Your task to perform on an android device: Open the Play Movies app and select the watchlist tab. Image 0: 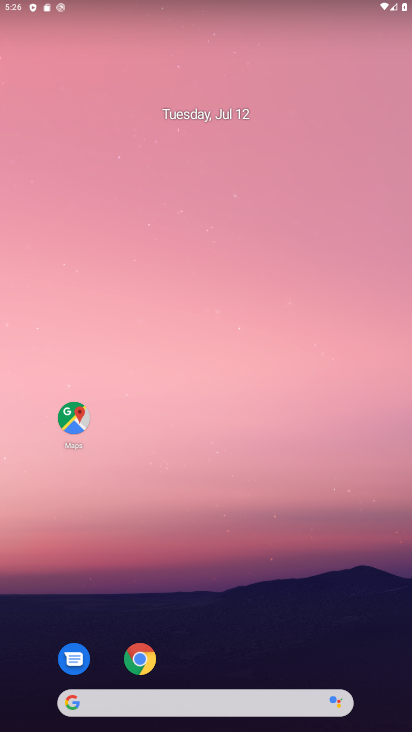
Step 0: drag from (250, 630) to (264, 196)
Your task to perform on an android device: Open the Play Movies app and select the watchlist tab. Image 1: 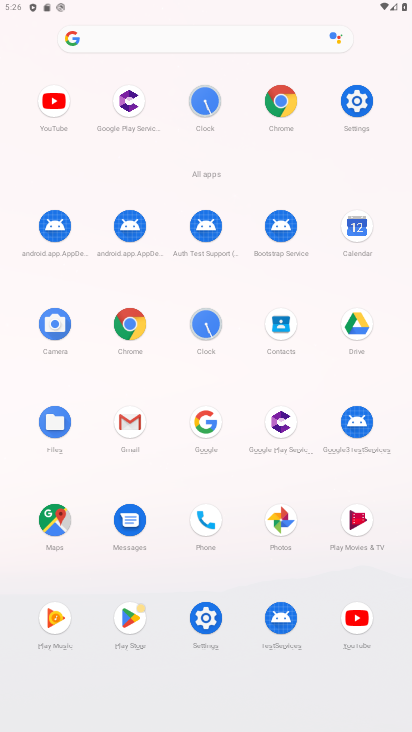
Step 1: click (352, 524)
Your task to perform on an android device: Open the Play Movies app and select the watchlist tab. Image 2: 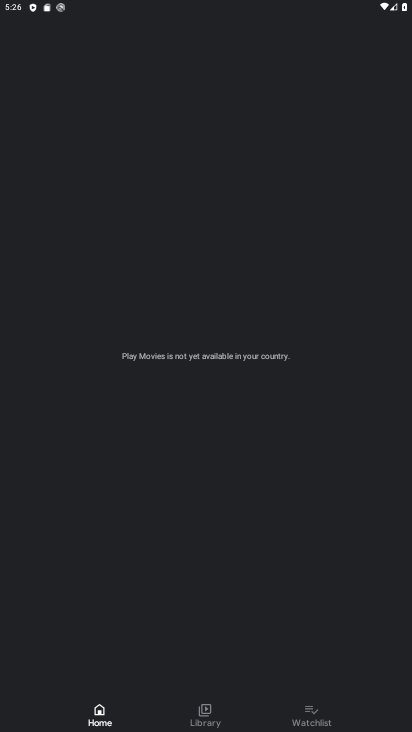
Step 2: click (308, 721)
Your task to perform on an android device: Open the Play Movies app and select the watchlist tab. Image 3: 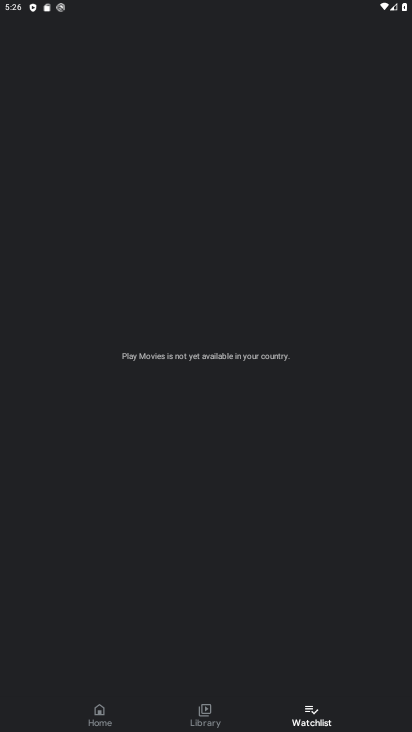
Step 3: task complete